Your task to perform on an android device: What's the weather going to be tomorrow? Image 0: 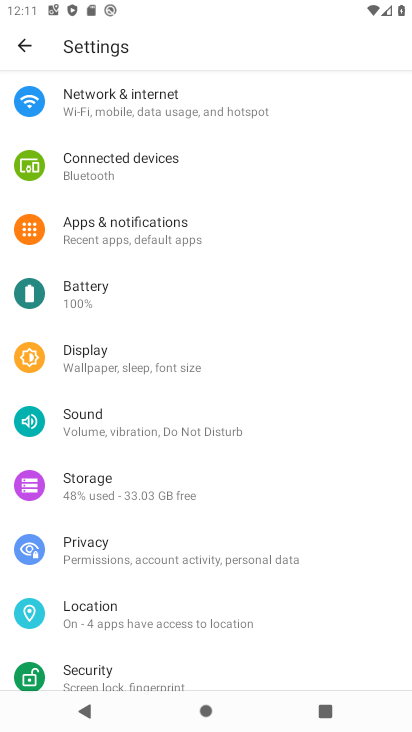
Step 0: press home button
Your task to perform on an android device: What's the weather going to be tomorrow? Image 1: 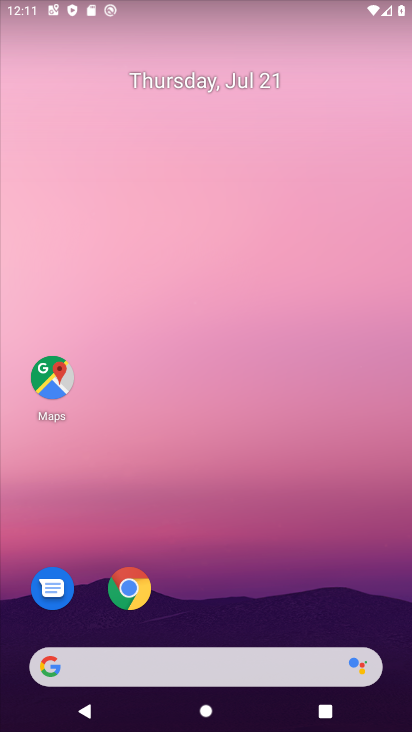
Step 1: click (207, 663)
Your task to perform on an android device: What's the weather going to be tomorrow? Image 2: 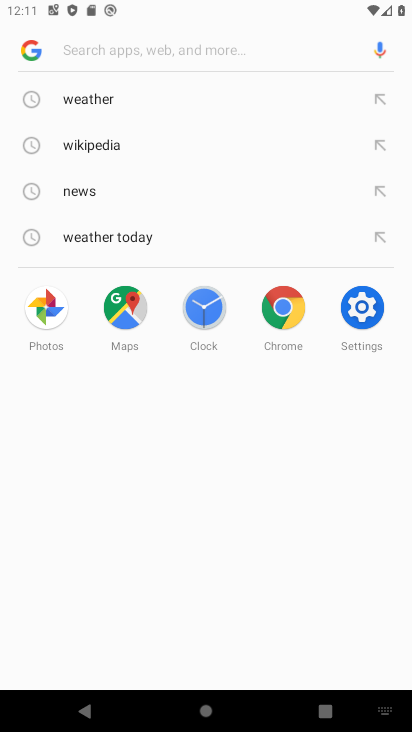
Step 2: click (73, 95)
Your task to perform on an android device: What's the weather going to be tomorrow? Image 3: 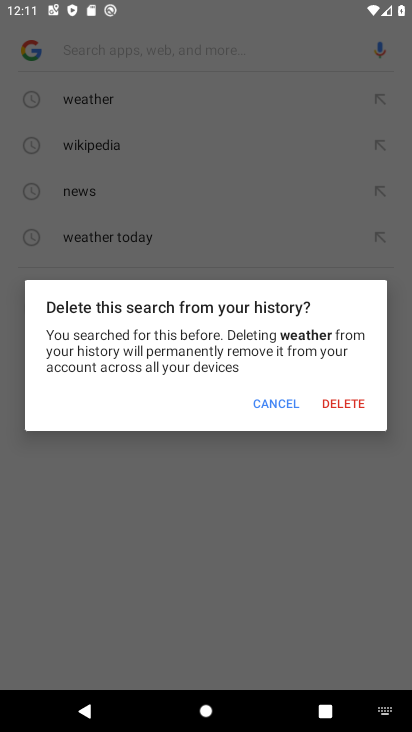
Step 3: click (259, 403)
Your task to perform on an android device: What's the weather going to be tomorrow? Image 4: 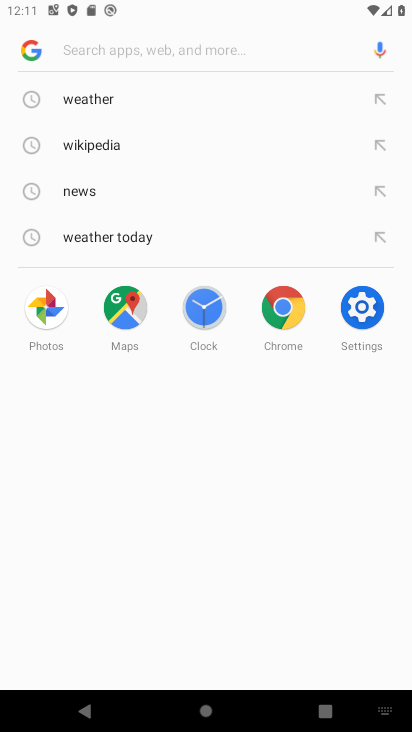
Step 4: click (111, 107)
Your task to perform on an android device: What's the weather going to be tomorrow? Image 5: 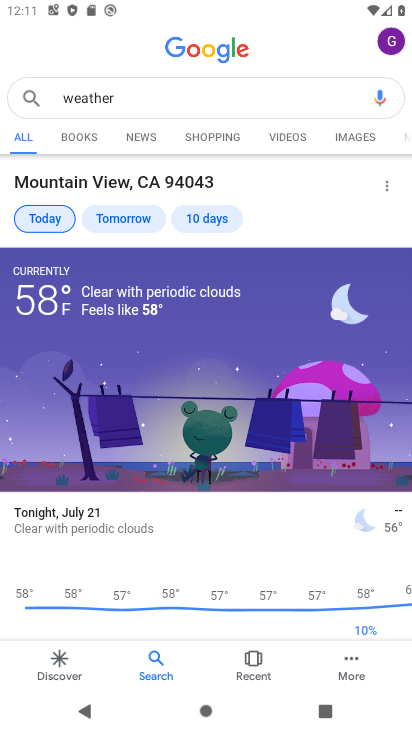
Step 5: click (141, 226)
Your task to perform on an android device: What's the weather going to be tomorrow? Image 6: 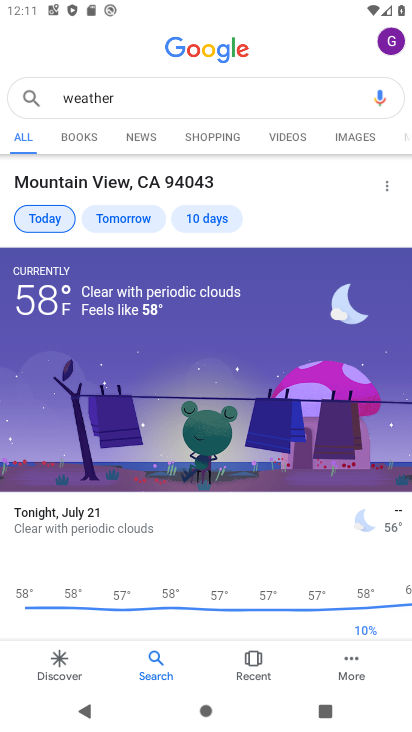
Step 6: click (141, 221)
Your task to perform on an android device: What's the weather going to be tomorrow? Image 7: 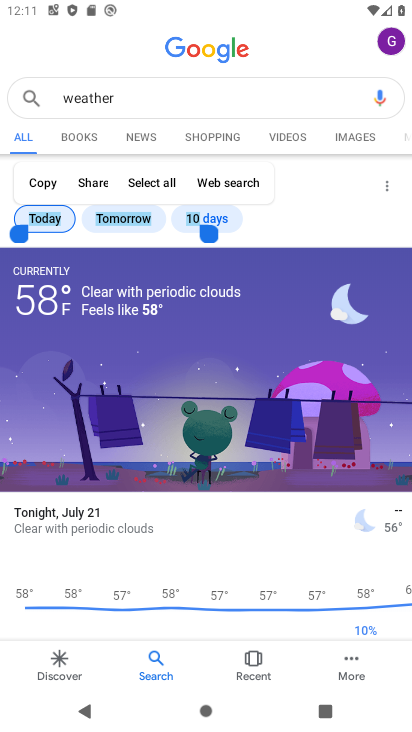
Step 7: click (146, 233)
Your task to perform on an android device: What's the weather going to be tomorrow? Image 8: 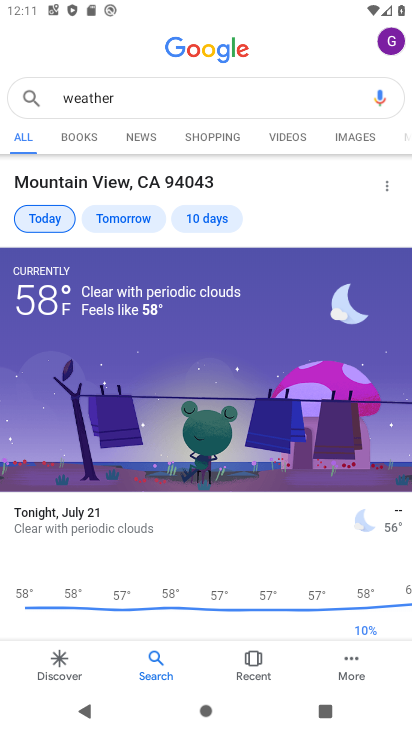
Step 8: click (141, 230)
Your task to perform on an android device: What's the weather going to be tomorrow? Image 9: 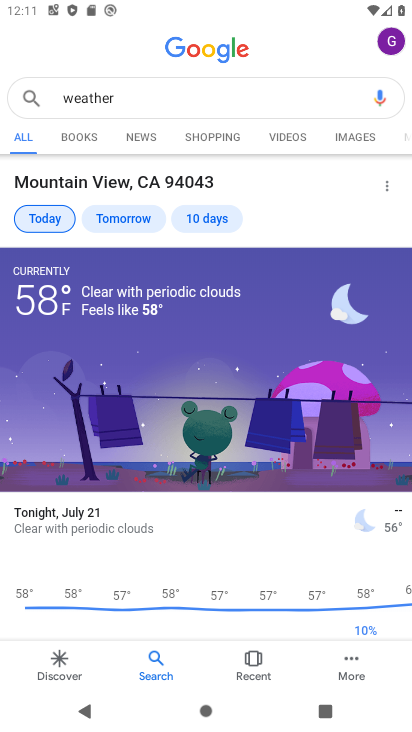
Step 9: click (141, 230)
Your task to perform on an android device: What's the weather going to be tomorrow? Image 10: 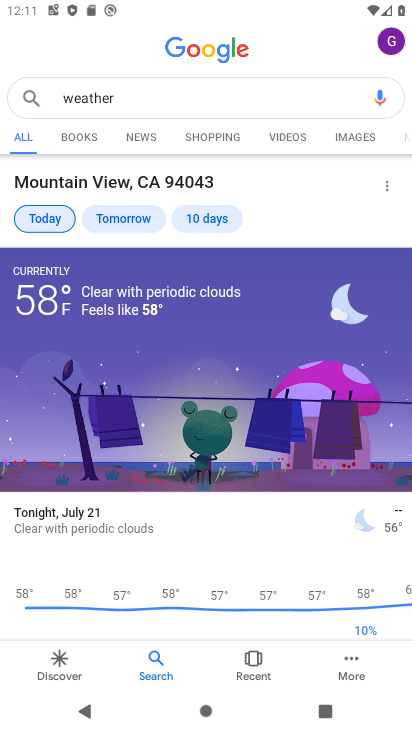
Step 10: click (142, 202)
Your task to perform on an android device: What's the weather going to be tomorrow? Image 11: 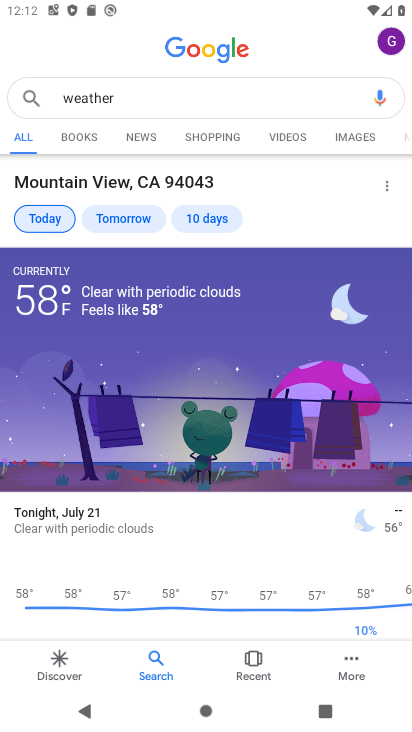
Step 11: click (131, 209)
Your task to perform on an android device: What's the weather going to be tomorrow? Image 12: 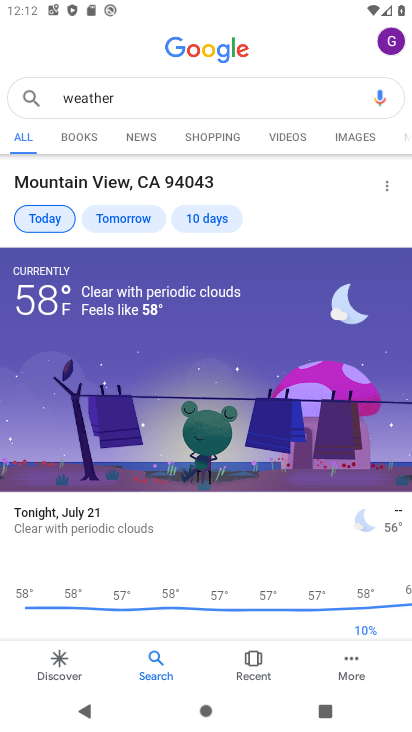
Step 12: click (132, 210)
Your task to perform on an android device: What's the weather going to be tomorrow? Image 13: 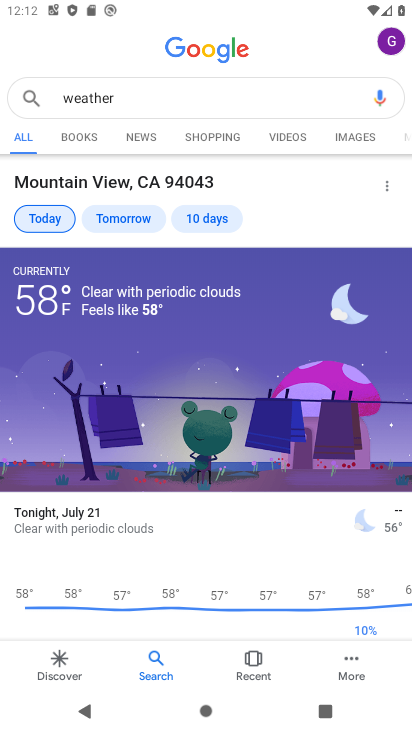
Step 13: click (132, 210)
Your task to perform on an android device: What's the weather going to be tomorrow? Image 14: 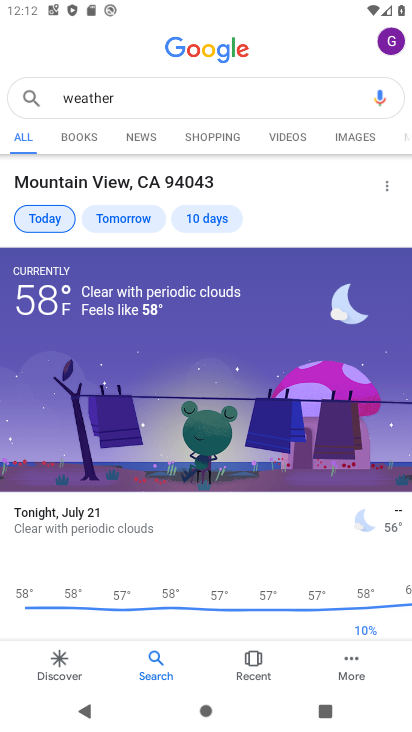
Step 14: click (132, 210)
Your task to perform on an android device: What's the weather going to be tomorrow? Image 15: 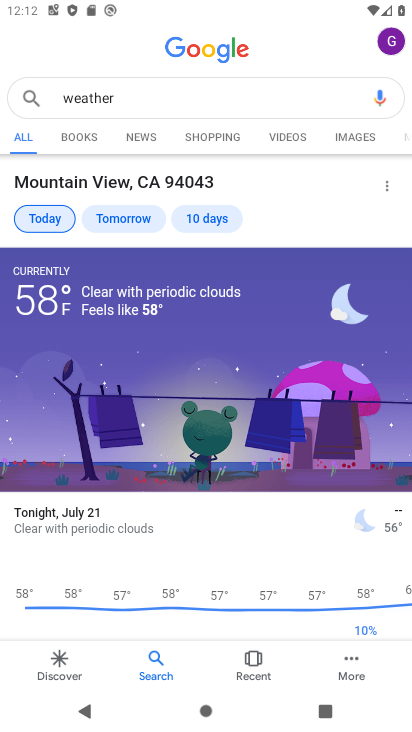
Step 15: task complete